Your task to perform on an android device: add a contact Image 0: 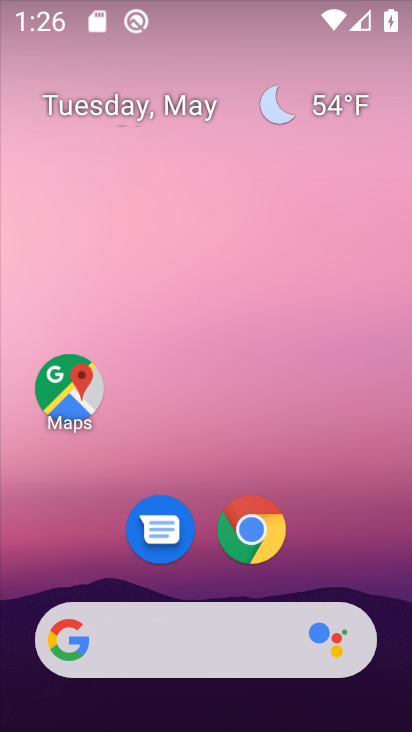
Step 0: drag from (348, 570) to (318, 252)
Your task to perform on an android device: add a contact Image 1: 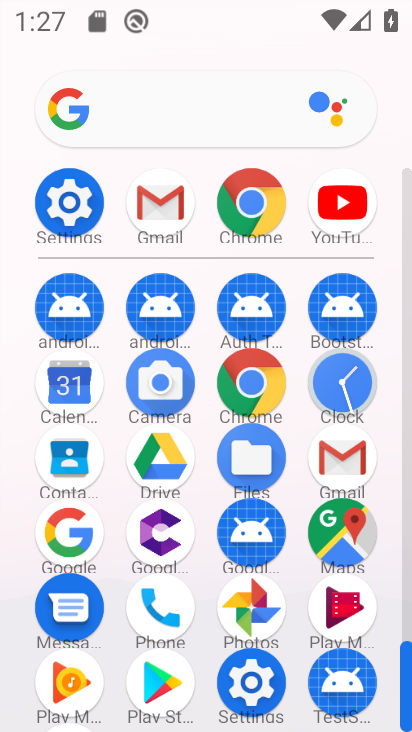
Step 1: click (153, 588)
Your task to perform on an android device: add a contact Image 2: 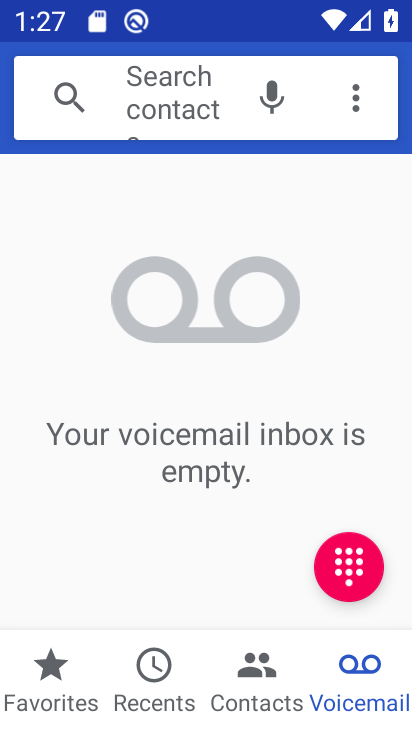
Step 2: click (40, 669)
Your task to perform on an android device: add a contact Image 3: 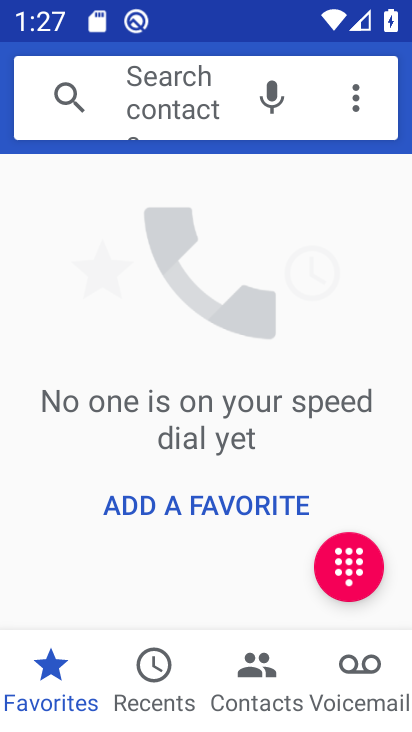
Step 3: click (186, 501)
Your task to perform on an android device: add a contact Image 4: 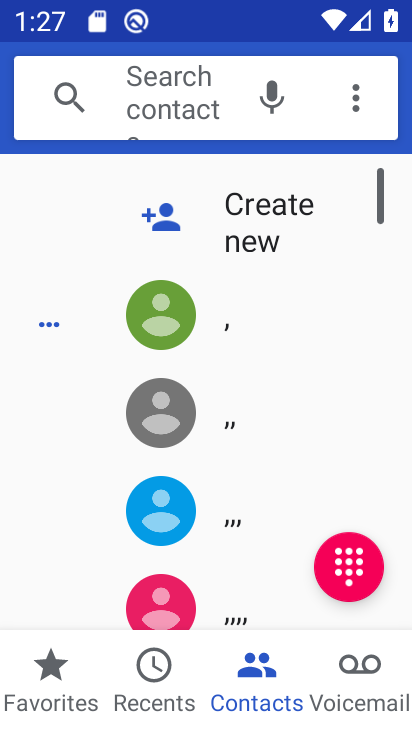
Step 4: click (214, 226)
Your task to perform on an android device: add a contact Image 5: 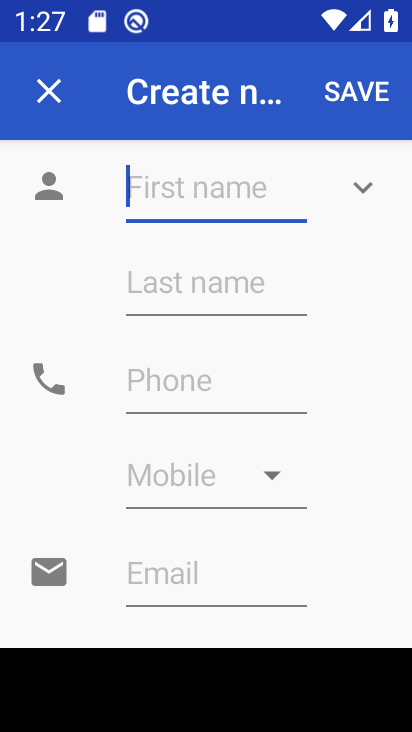
Step 5: click (239, 191)
Your task to perform on an android device: add a contact Image 6: 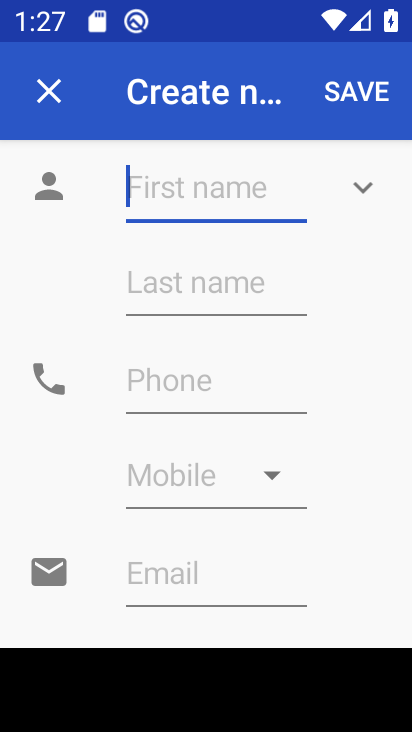
Step 6: type "rsrrsrsrsrsrsrs"
Your task to perform on an android device: add a contact Image 7: 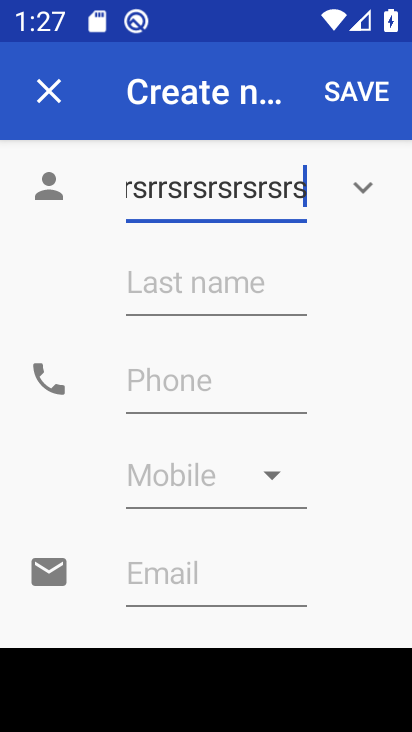
Step 7: click (176, 278)
Your task to perform on an android device: add a contact Image 8: 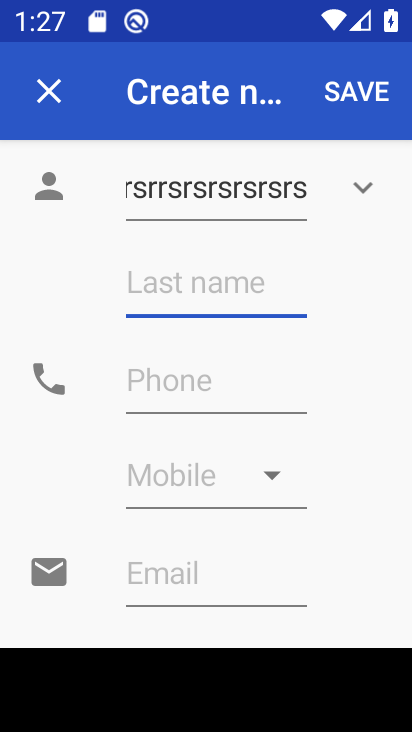
Step 8: type "323232323333333"
Your task to perform on an android device: add a contact Image 9: 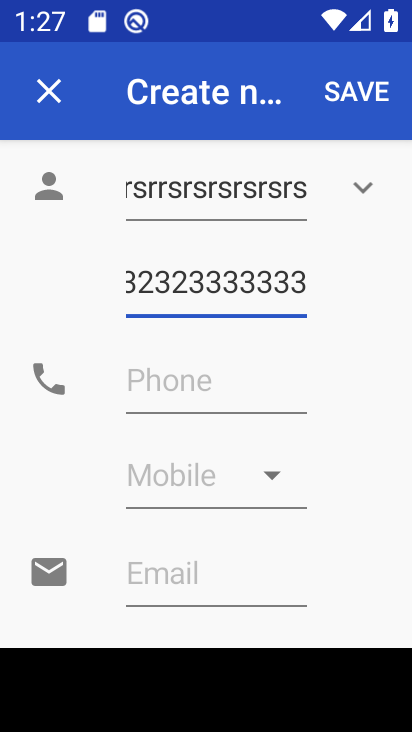
Step 9: click (340, 91)
Your task to perform on an android device: add a contact Image 10: 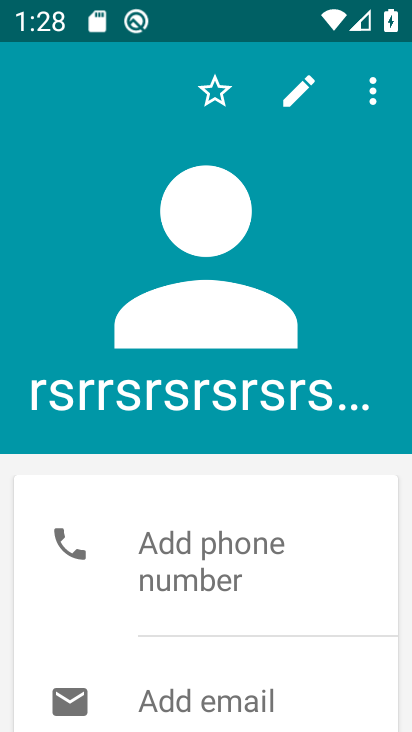
Step 10: task complete